Your task to perform on an android device: Open settings Image 0: 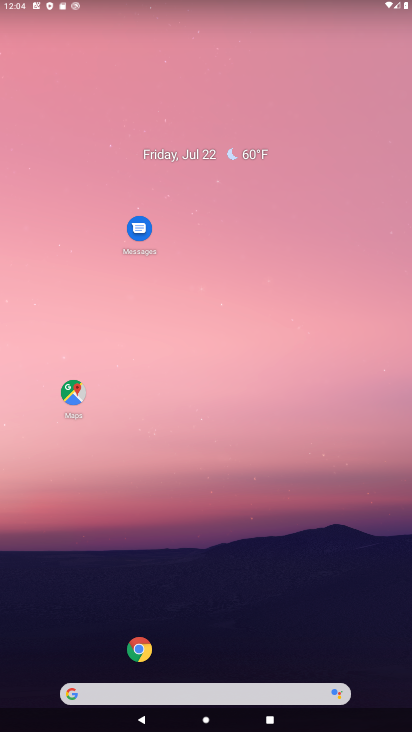
Step 0: drag from (94, 729) to (165, 103)
Your task to perform on an android device: Open settings Image 1: 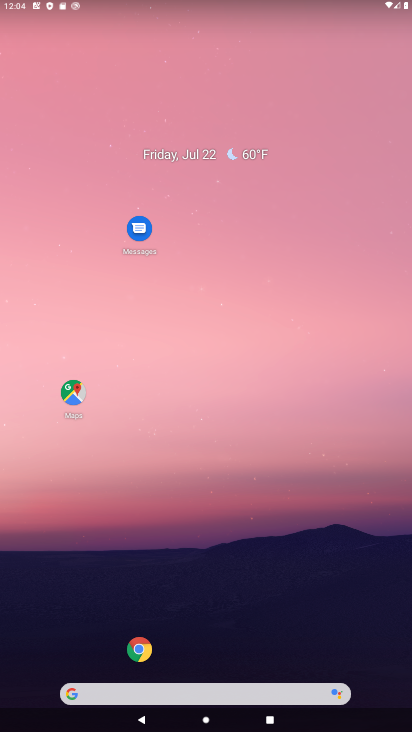
Step 1: drag from (48, 656) to (111, 183)
Your task to perform on an android device: Open settings Image 2: 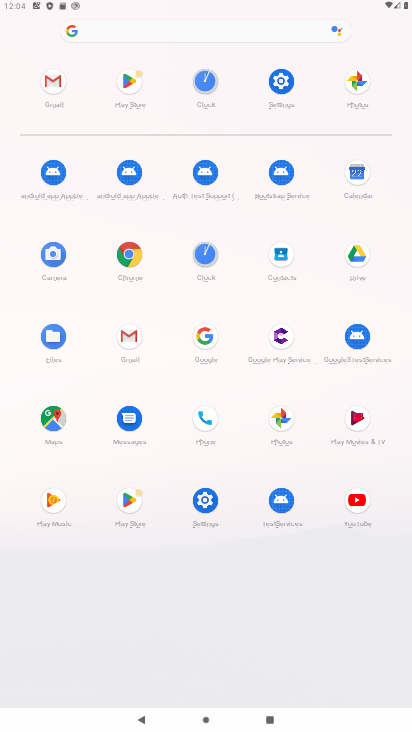
Step 2: click (215, 523)
Your task to perform on an android device: Open settings Image 3: 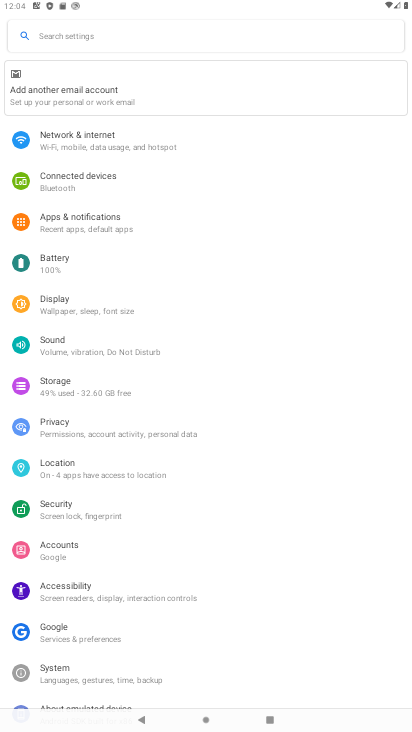
Step 3: task complete